Your task to perform on an android device: clear history in the chrome app Image 0: 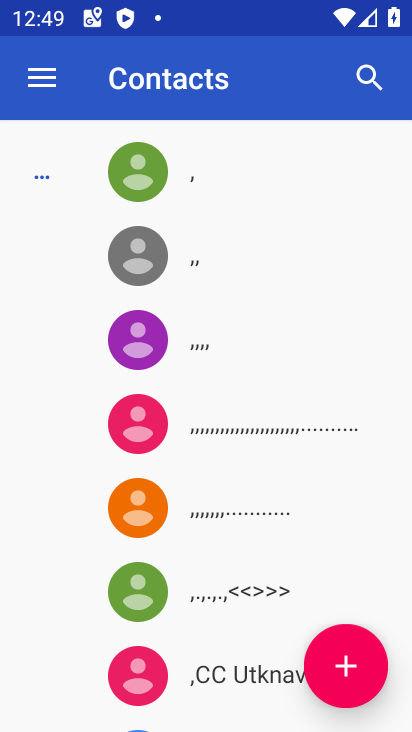
Step 0: press home button
Your task to perform on an android device: clear history in the chrome app Image 1: 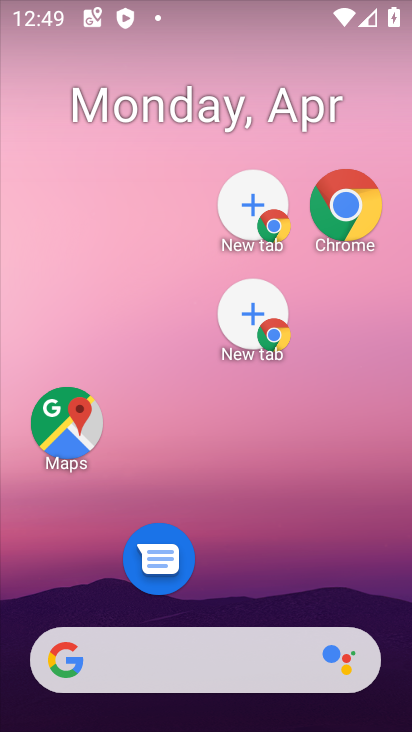
Step 1: click (356, 234)
Your task to perform on an android device: clear history in the chrome app Image 2: 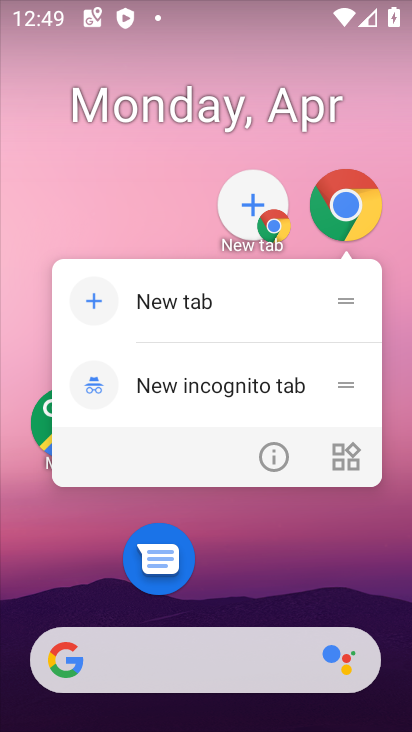
Step 2: click (276, 462)
Your task to perform on an android device: clear history in the chrome app Image 3: 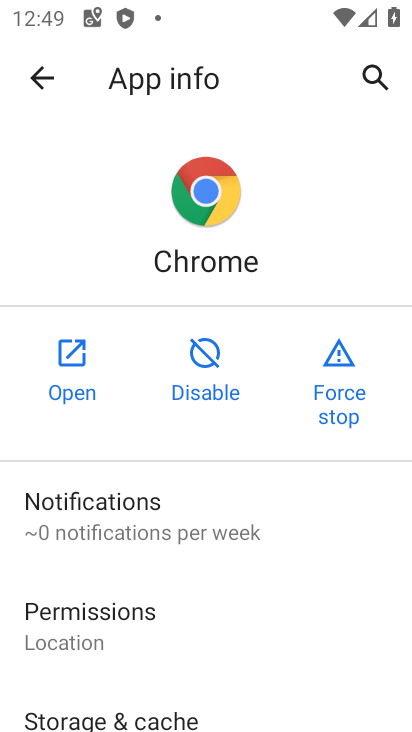
Step 3: click (76, 376)
Your task to perform on an android device: clear history in the chrome app Image 4: 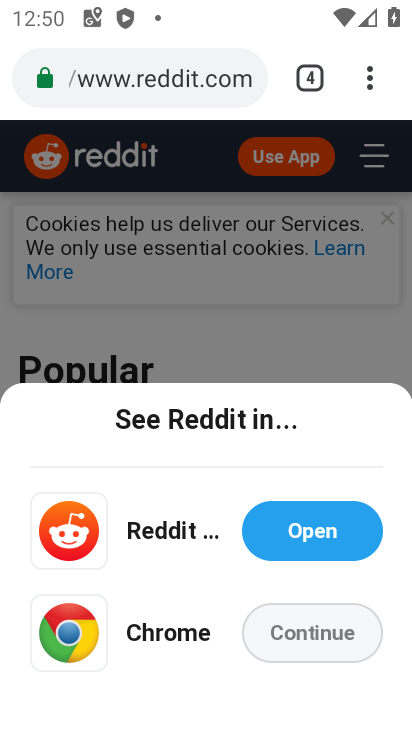
Step 4: click (283, 193)
Your task to perform on an android device: clear history in the chrome app Image 5: 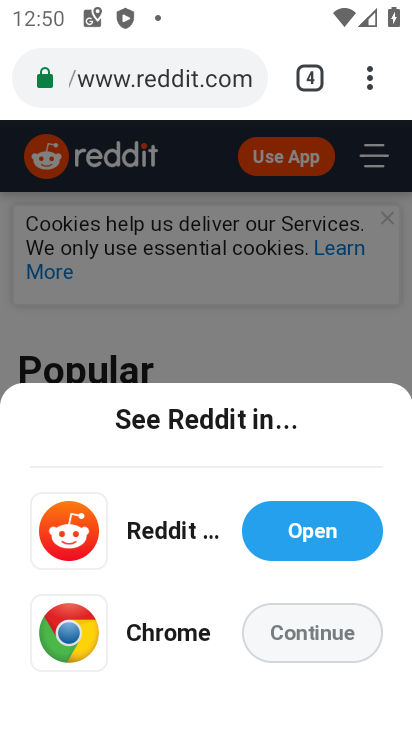
Step 5: click (364, 80)
Your task to perform on an android device: clear history in the chrome app Image 6: 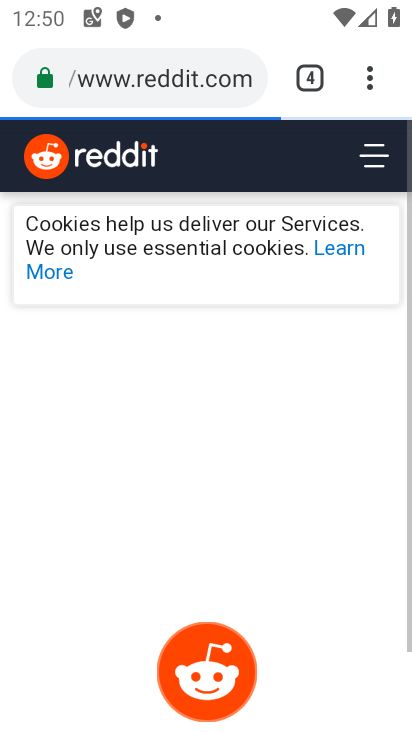
Step 6: click (379, 82)
Your task to perform on an android device: clear history in the chrome app Image 7: 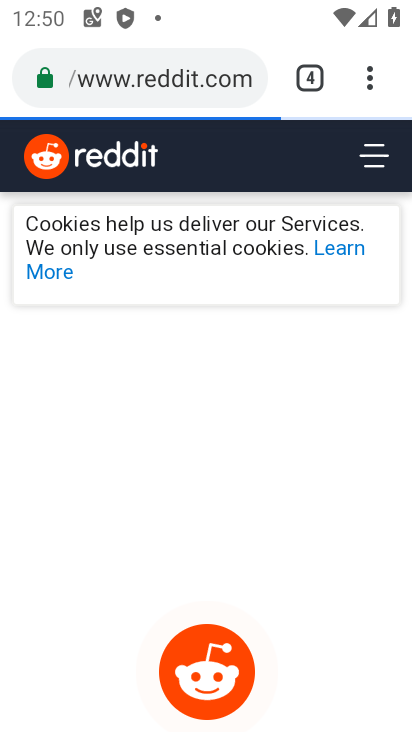
Step 7: click (368, 81)
Your task to perform on an android device: clear history in the chrome app Image 8: 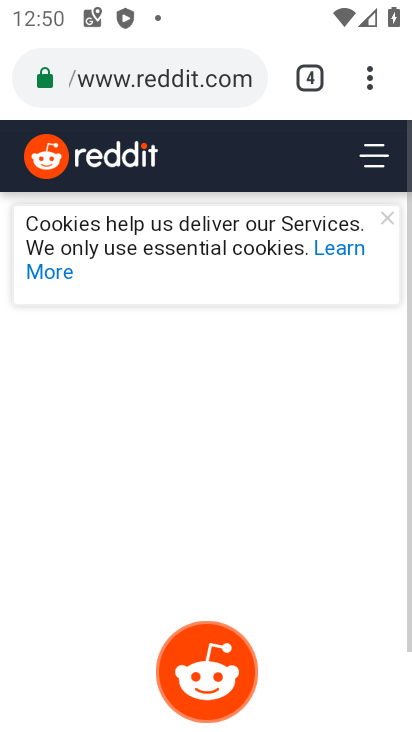
Step 8: click (374, 80)
Your task to perform on an android device: clear history in the chrome app Image 9: 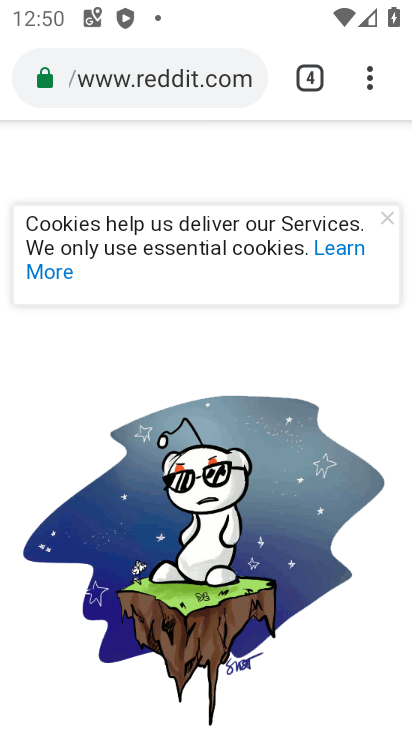
Step 9: click (370, 78)
Your task to perform on an android device: clear history in the chrome app Image 10: 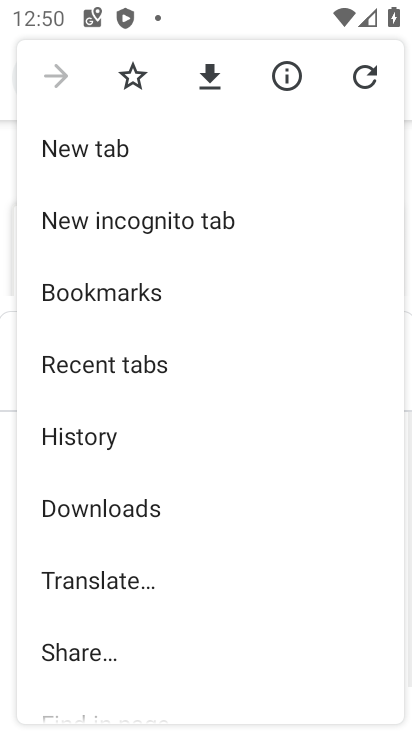
Step 10: click (107, 431)
Your task to perform on an android device: clear history in the chrome app Image 11: 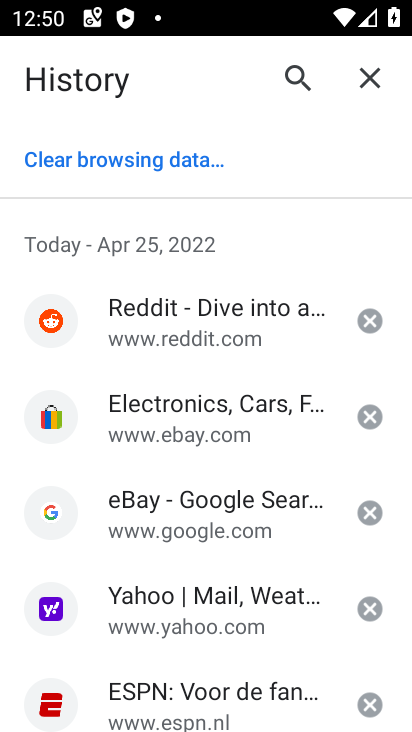
Step 11: click (148, 172)
Your task to perform on an android device: clear history in the chrome app Image 12: 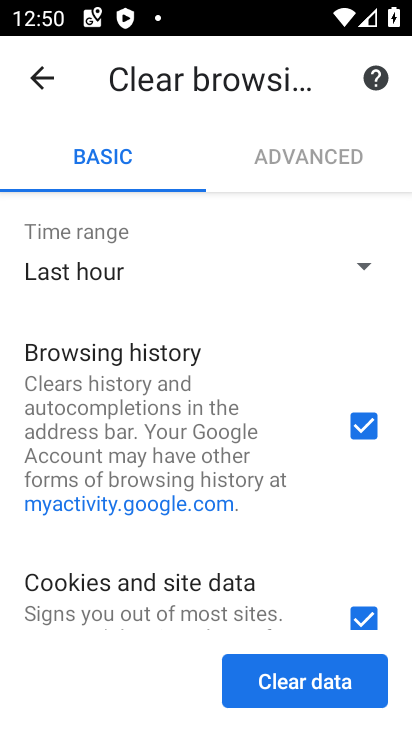
Step 12: click (308, 664)
Your task to perform on an android device: clear history in the chrome app Image 13: 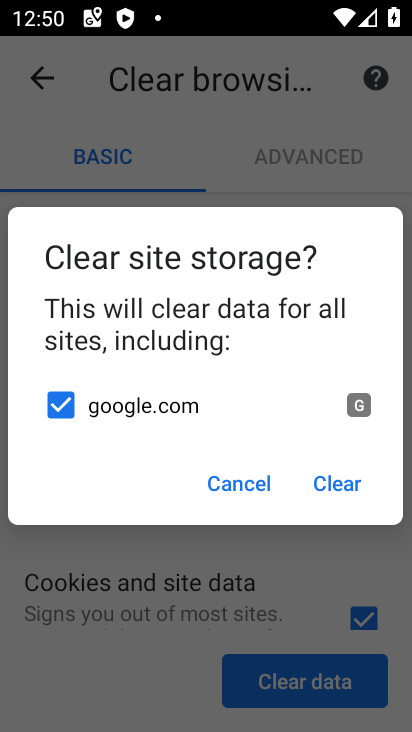
Step 13: click (329, 498)
Your task to perform on an android device: clear history in the chrome app Image 14: 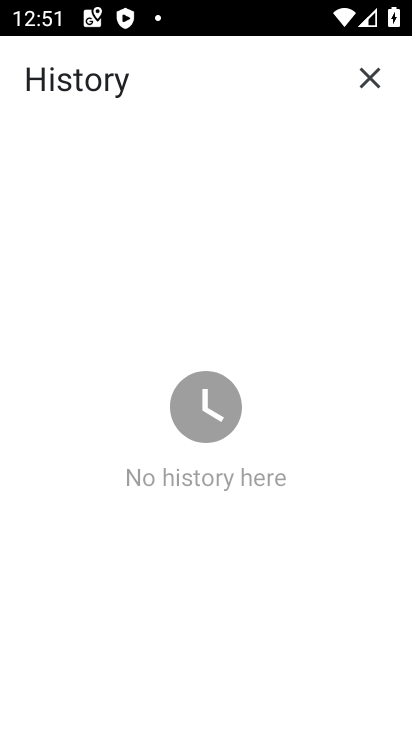
Step 14: task complete